Your task to perform on an android device: Open Android settings Image 0: 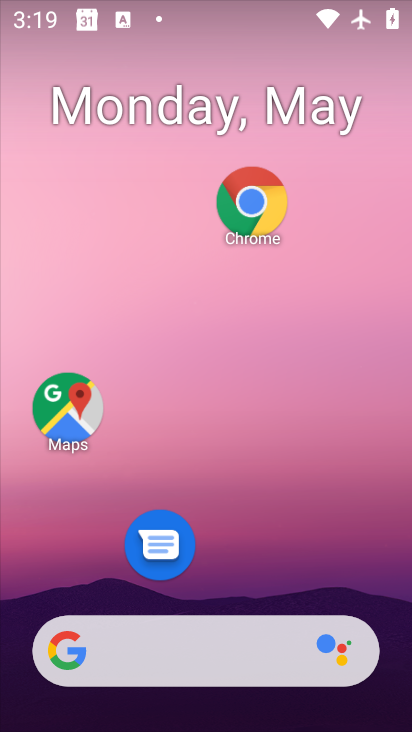
Step 0: drag from (247, 576) to (263, 195)
Your task to perform on an android device: Open Android settings Image 1: 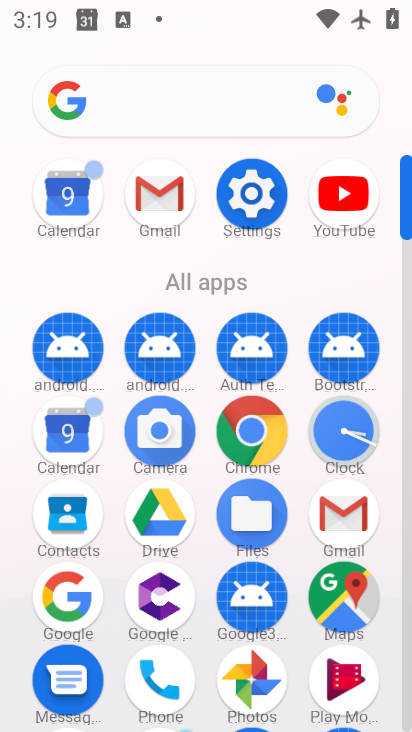
Step 1: click (263, 193)
Your task to perform on an android device: Open Android settings Image 2: 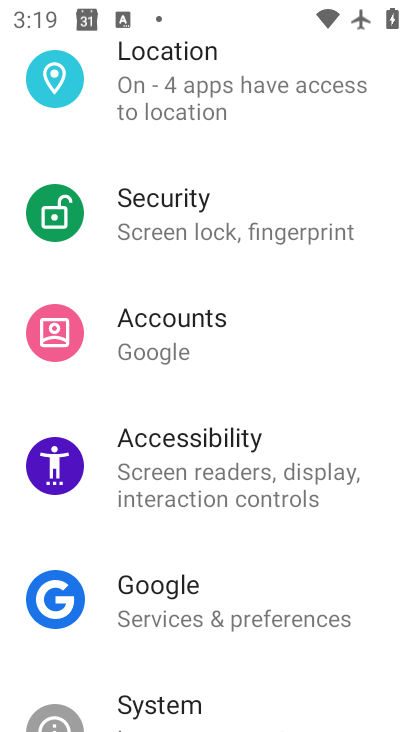
Step 2: task complete